Your task to perform on an android device: turn off translation in the chrome app Image 0: 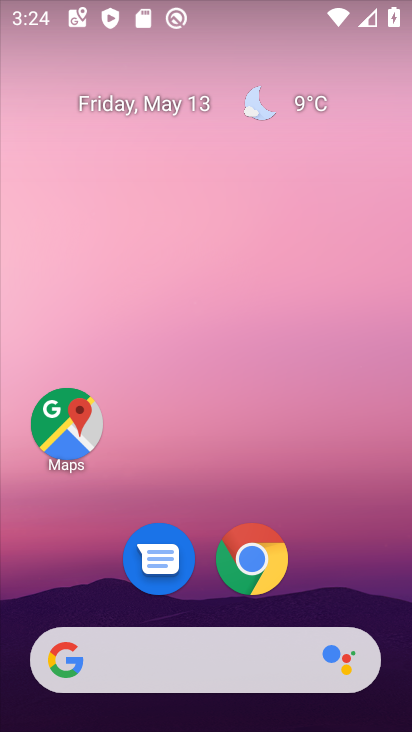
Step 0: click (256, 557)
Your task to perform on an android device: turn off translation in the chrome app Image 1: 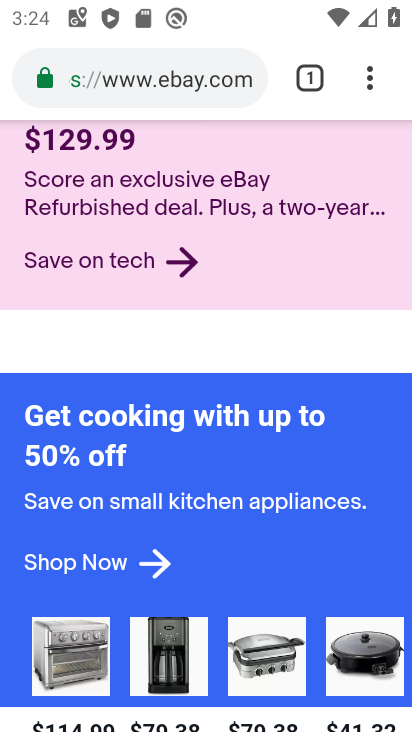
Step 1: click (367, 88)
Your task to perform on an android device: turn off translation in the chrome app Image 2: 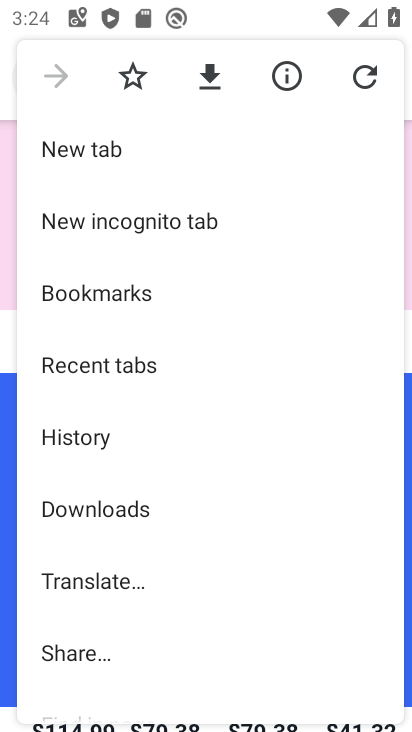
Step 2: drag from (224, 572) to (241, 155)
Your task to perform on an android device: turn off translation in the chrome app Image 3: 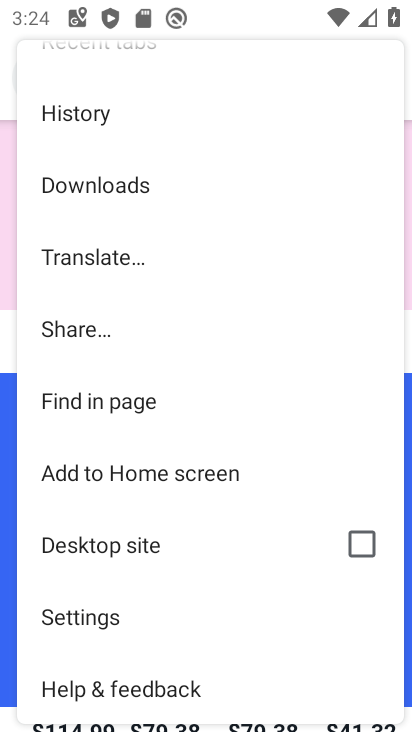
Step 3: click (103, 624)
Your task to perform on an android device: turn off translation in the chrome app Image 4: 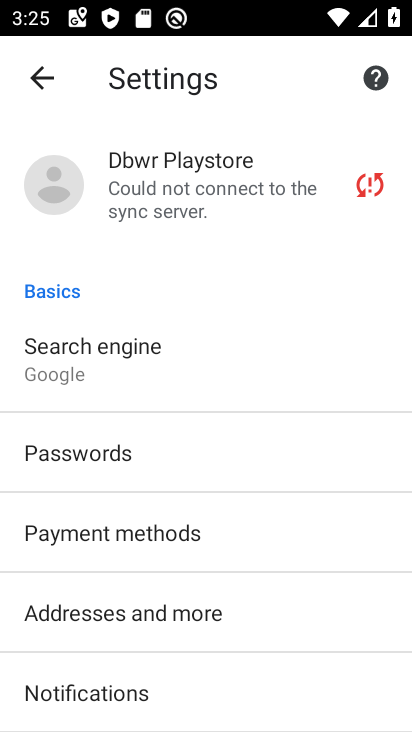
Step 4: drag from (272, 670) to (242, 105)
Your task to perform on an android device: turn off translation in the chrome app Image 5: 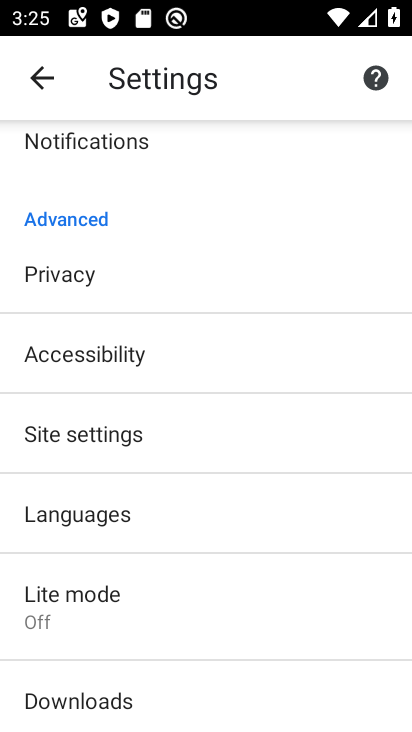
Step 5: click (67, 514)
Your task to perform on an android device: turn off translation in the chrome app Image 6: 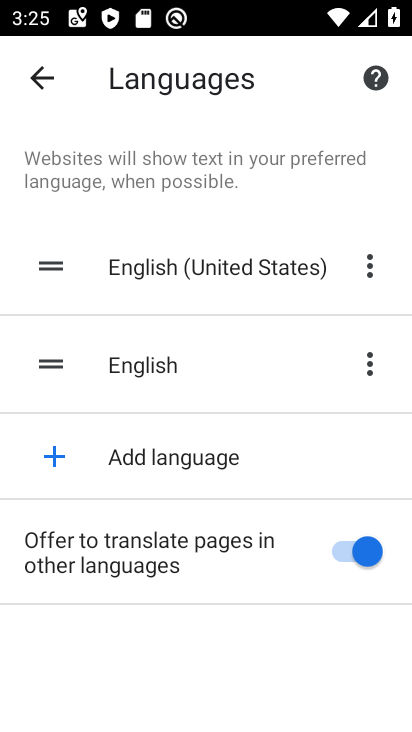
Step 6: click (335, 545)
Your task to perform on an android device: turn off translation in the chrome app Image 7: 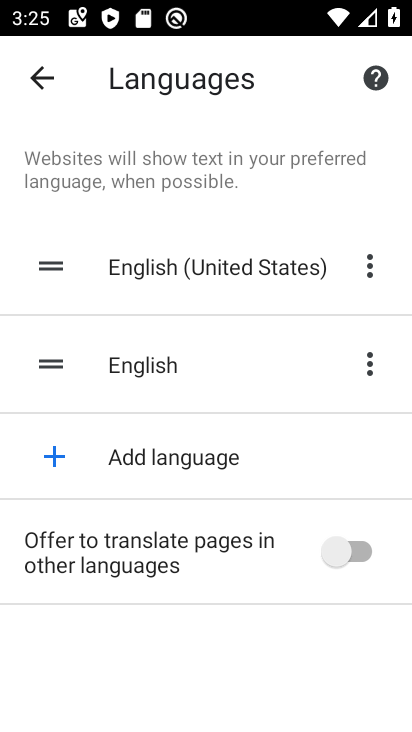
Step 7: task complete